Your task to perform on an android device: Go to battery settings Image 0: 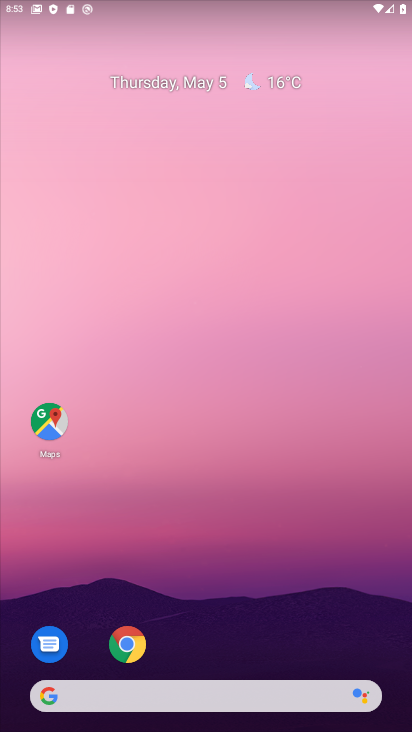
Step 0: drag from (192, 640) to (299, 160)
Your task to perform on an android device: Go to battery settings Image 1: 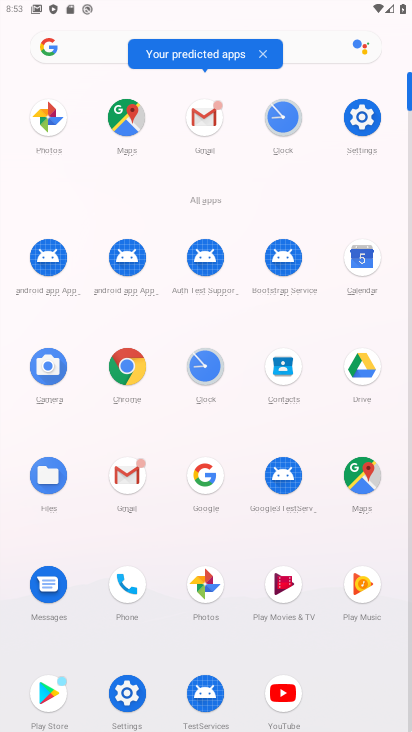
Step 1: click (365, 122)
Your task to perform on an android device: Go to battery settings Image 2: 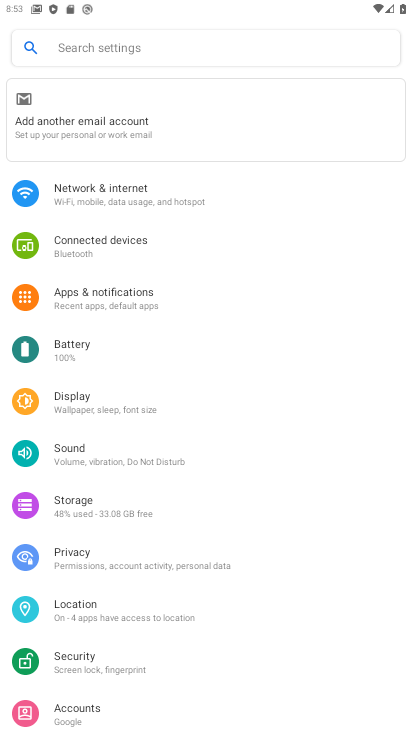
Step 2: click (117, 343)
Your task to perform on an android device: Go to battery settings Image 3: 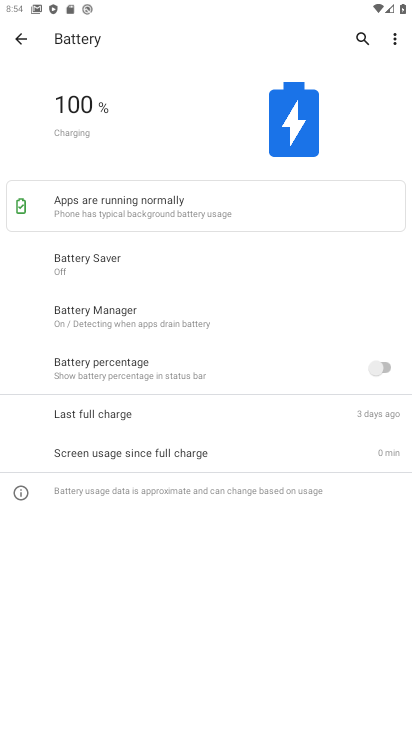
Step 3: task complete